Your task to perform on an android device: Search for Mexican restaurants on Maps Image 0: 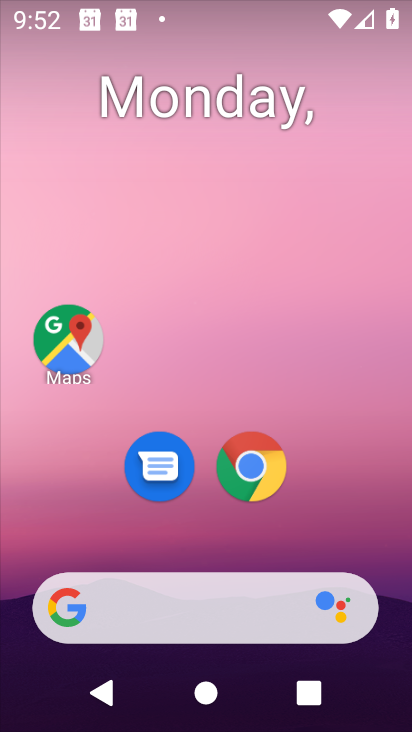
Step 0: drag from (342, 682) to (208, 167)
Your task to perform on an android device: Search for Mexican restaurants on Maps Image 1: 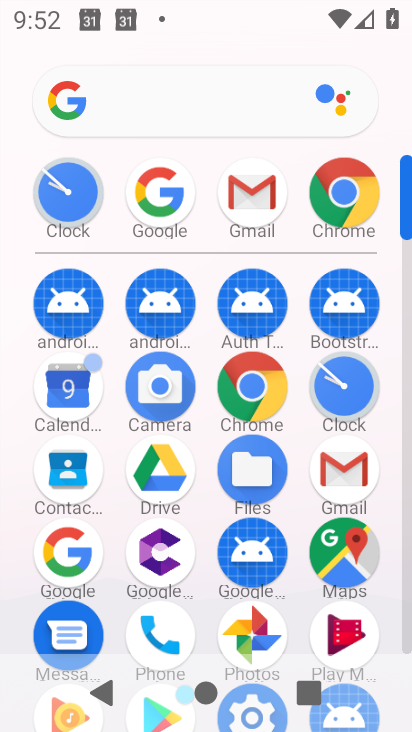
Step 1: click (342, 552)
Your task to perform on an android device: Search for Mexican restaurants on Maps Image 2: 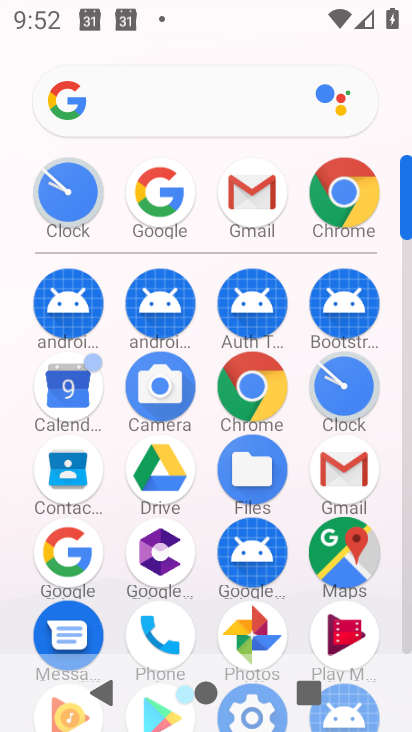
Step 2: click (343, 552)
Your task to perform on an android device: Search for Mexican restaurants on Maps Image 3: 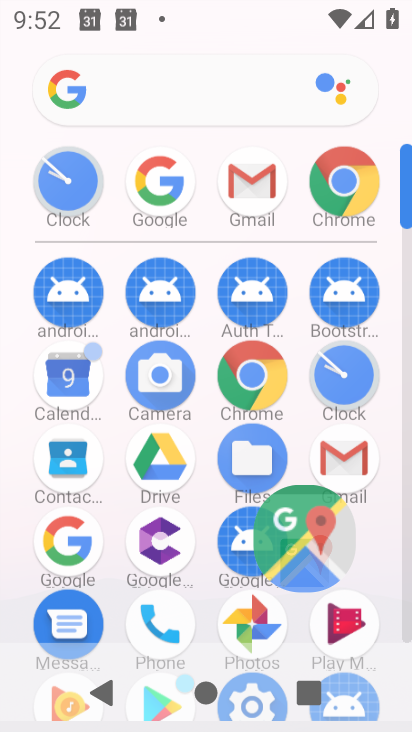
Step 3: click (343, 552)
Your task to perform on an android device: Search for Mexican restaurants on Maps Image 4: 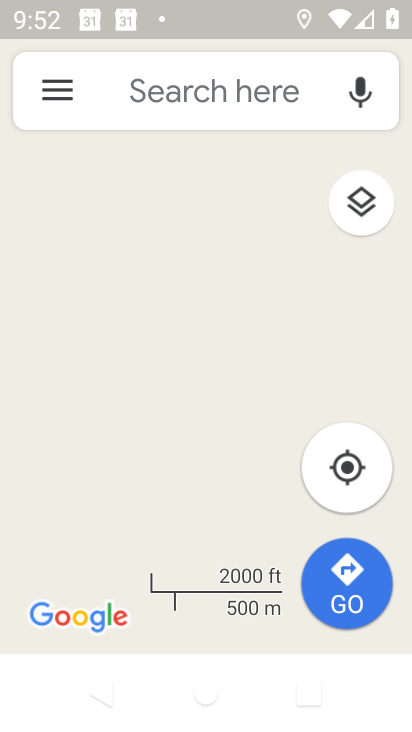
Step 4: click (137, 78)
Your task to perform on an android device: Search for Mexican restaurants on Maps Image 5: 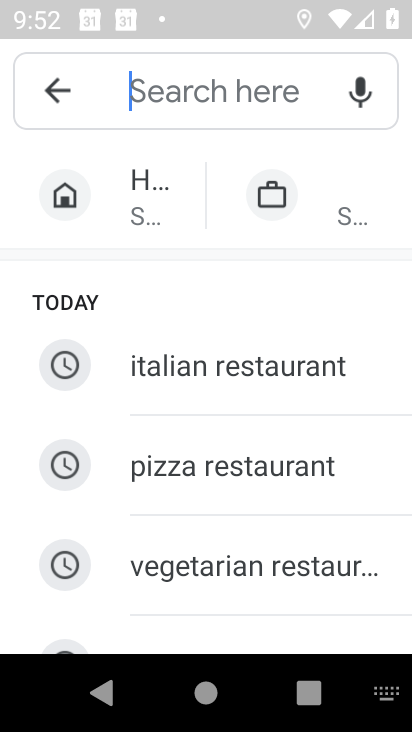
Step 5: type "mexican restourants"
Your task to perform on an android device: Search for Mexican restaurants on Maps Image 6: 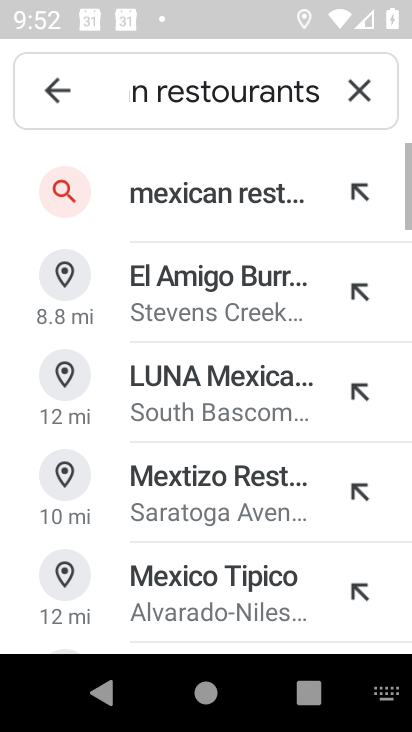
Step 6: click (207, 206)
Your task to perform on an android device: Search for Mexican restaurants on Maps Image 7: 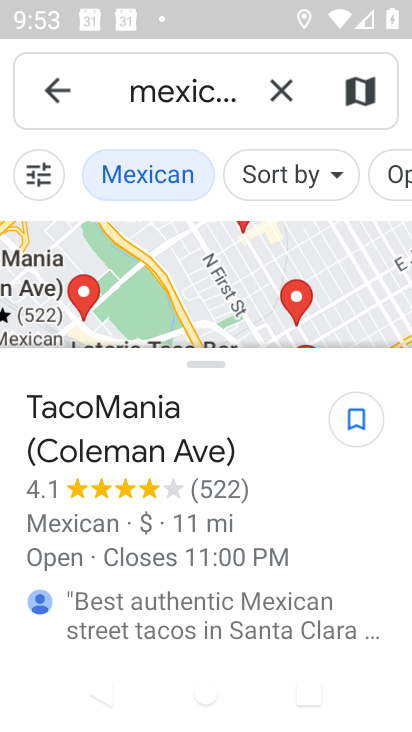
Step 7: task complete